Your task to perform on an android device: Open Wikipedia Image 0: 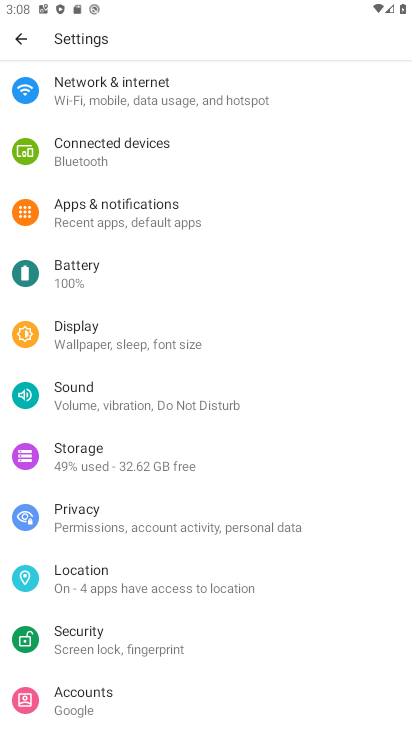
Step 0: click (311, 307)
Your task to perform on an android device: Open Wikipedia Image 1: 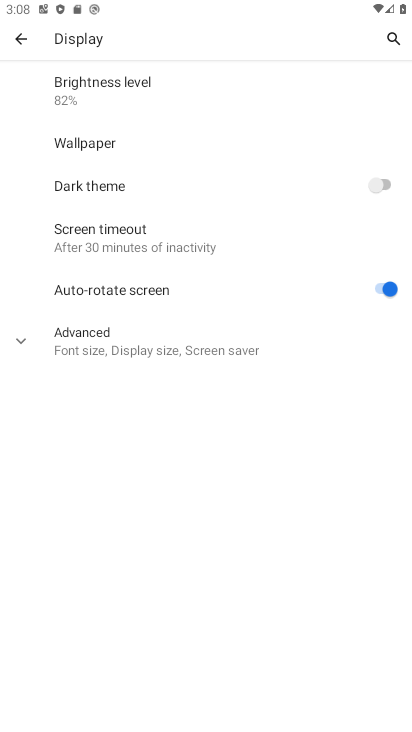
Step 1: press home button
Your task to perform on an android device: Open Wikipedia Image 2: 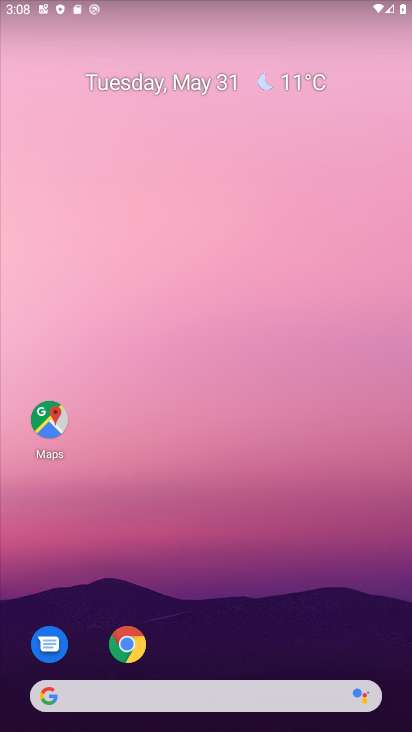
Step 2: click (214, 701)
Your task to perform on an android device: Open Wikipedia Image 3: 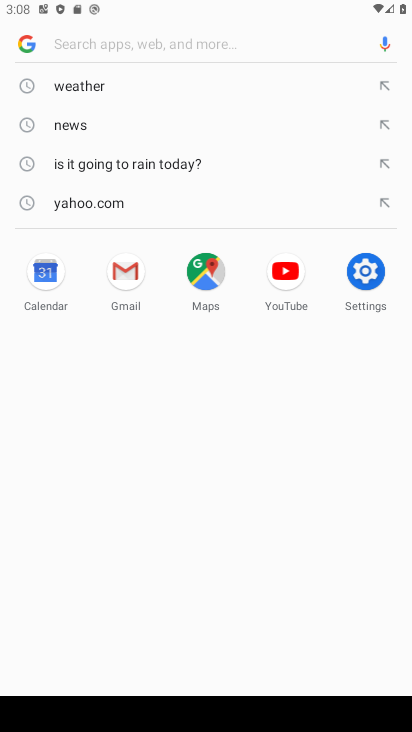
Step 3: type "wikipedia"
Your task to perform on an android device: Open Wikipedia Image 4: 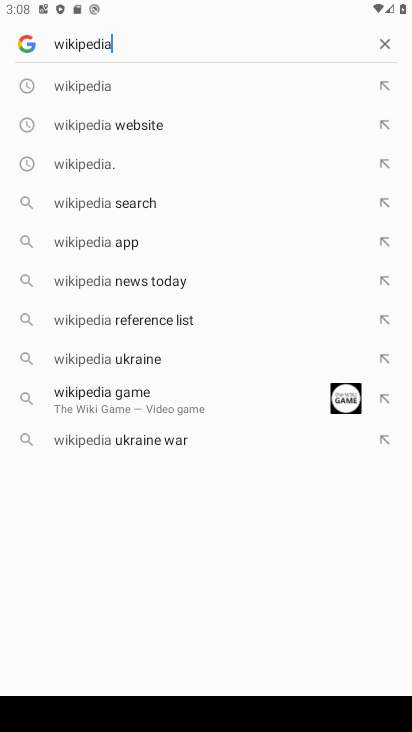
Step 4: click (105, 73)
Your task to perform on an android device: Open Wikipedia Image 5: 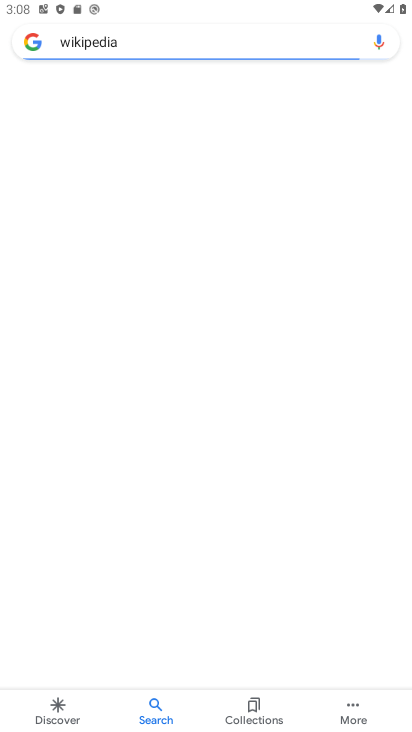
Step 5: click (106, 86)
Your task to perform on an android device: Open Wikipedia Image 6: 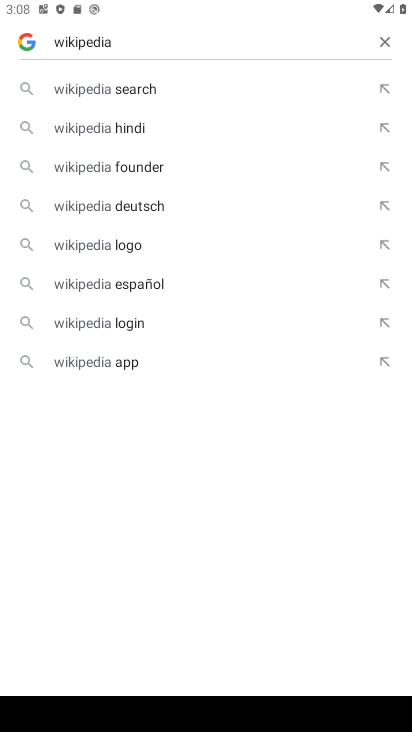
Step 6: click (97, 97)
Your task to perform on an android device: Open Wikipedia Image 7: 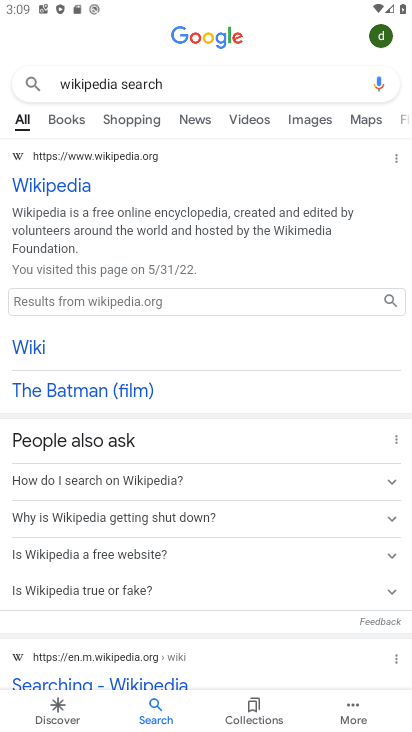
Step 7: task complete